Your task to perform on an android device: manage bookmarks in the chrome app Image 0: 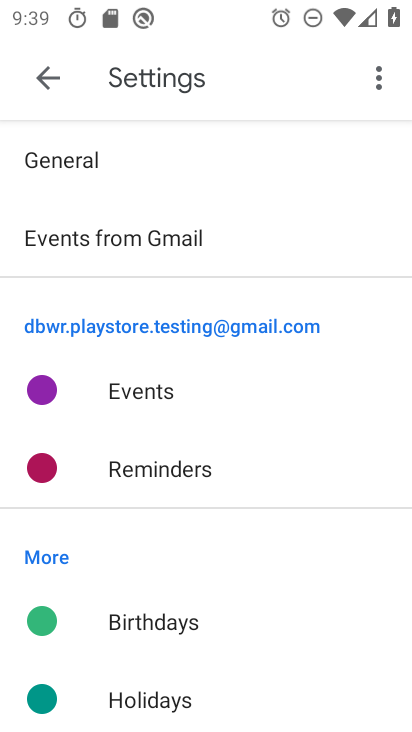
Step 0: press back button
Your task to perform on an android device: manage bookmarks in the chrome app Image 1: 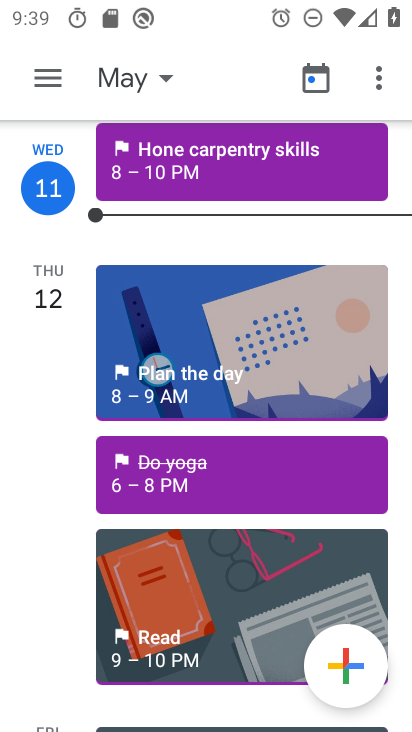
Step 1: press home button
Your task to perform on an android device: manage bookmarks in the chrome app Image 2: 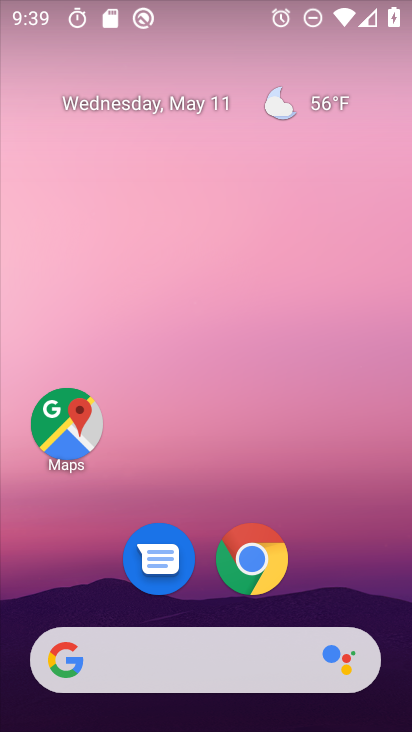
Step 2: click (282, 570)
Your task to perform on an android device: manage bookmarks in the chrome app Image 3: 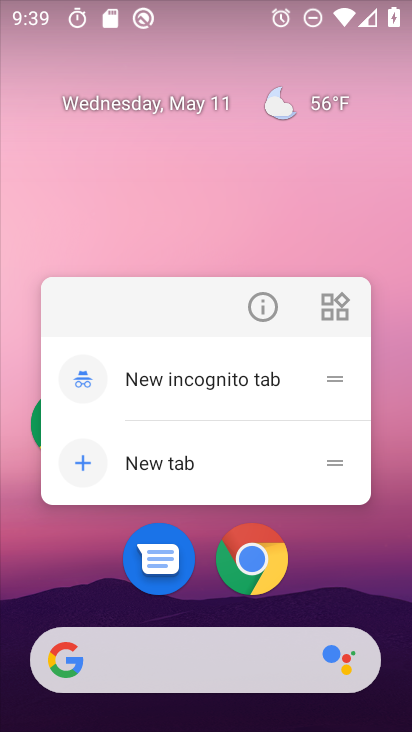
Step 3: click (242, 561)
Your task to perform on an android device: manage bookmarks in the chrome app Image 4: 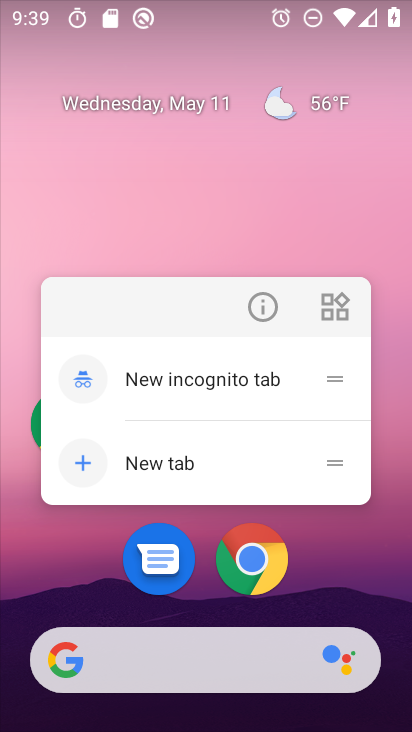
Step 4: click (242, 561)
Your task to perform on an android device: manage bookmarks in the chrome app Image 5: 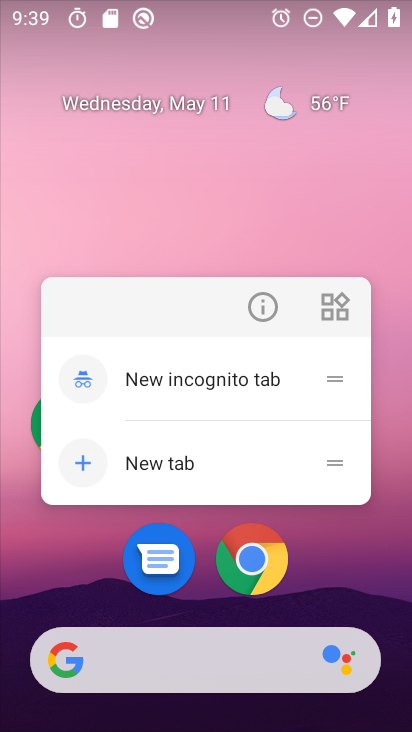
Step 5: click (247, 559)
Your task to perform on an android device: manage bookmarks in the chrome app Image 6: 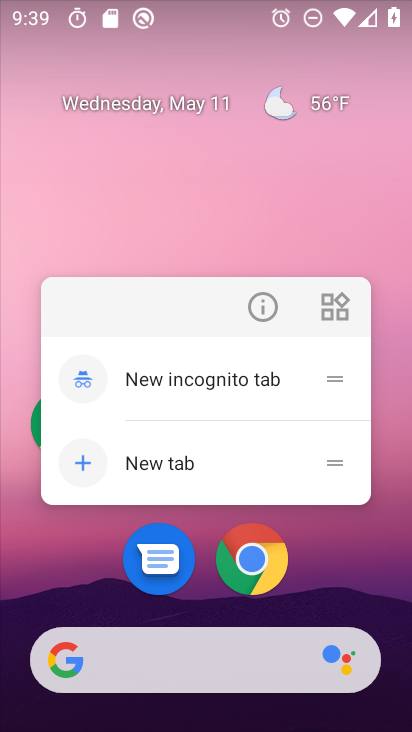
Step 6: click (249, 558)
Your task to perform on an android device: manage bookmarks in the chrome app Image 7: 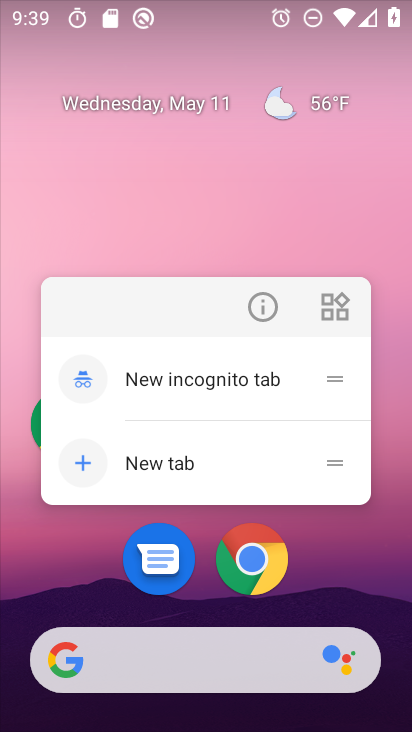
Step 7: click (249, 558)
Your task to perform on an android device: manage bookmarks in the chrome app Image 8: 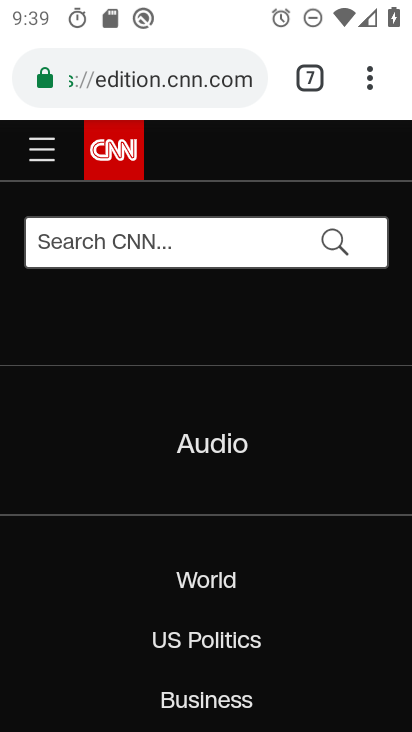
Step 8: click (363, 88)
Your task to perform on an android device: manage bookmarks in the chrome app Image 9: 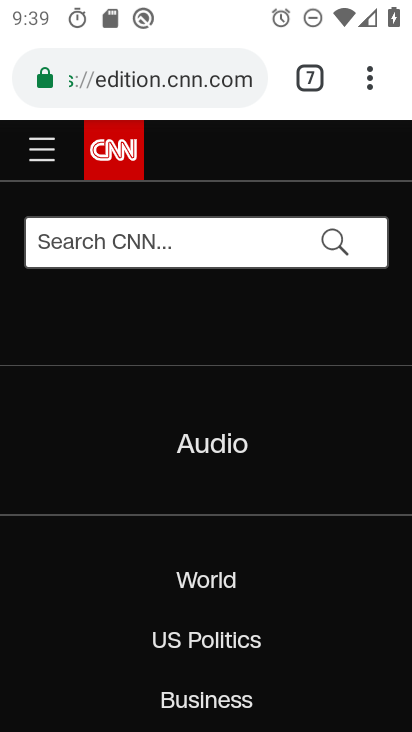
Step 9: click (369, 78)
Your task to perform on an android device: manage bookmarks in the chrome app Image 10: 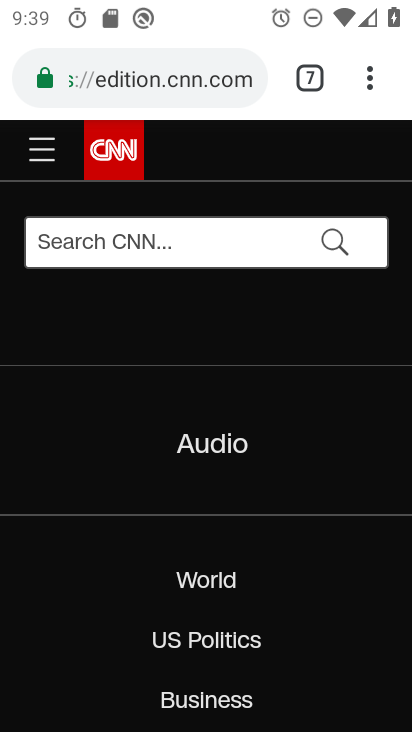
Step 10: click (370, 82)
Your task to perform on an android device: manage bookmarks in the chrome app Image 11: 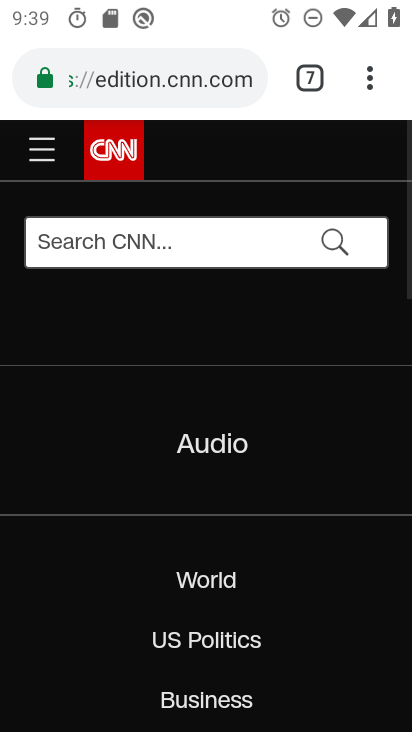
Step 11: click (371, 82)
Your task to perform on an android device: manage bookmarks in the chrome app Image 12: 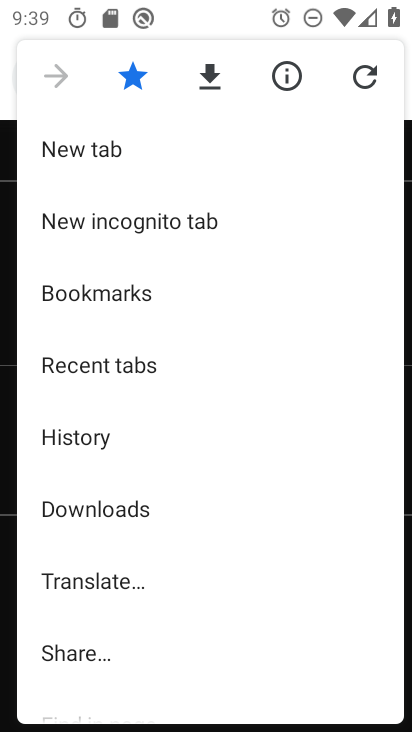
Step 12: click (130, 295)
Your task to perform on an android device: manage bookmarks in the chrome app Image 13: 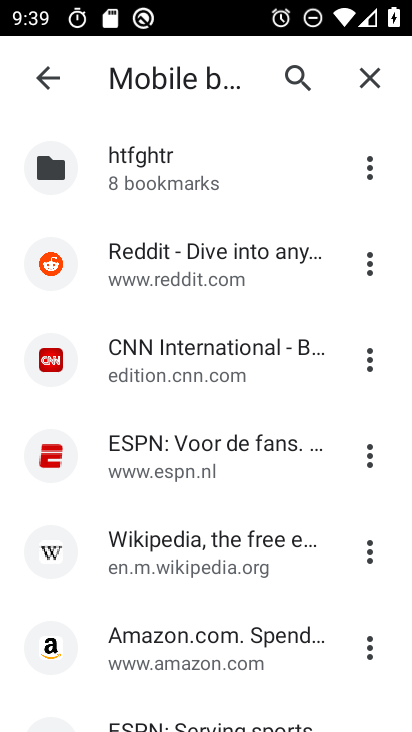
Step 13: drag from (276, 594) to (211, 155)
Your task to perform on an android device: manage bookmarks in the chrome app Image 14: 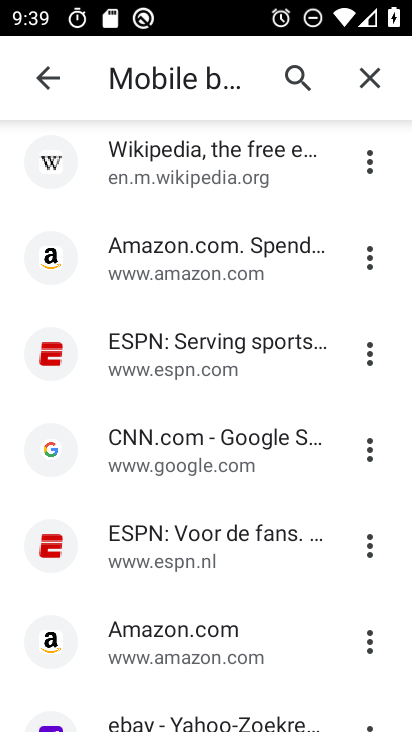
Step 14: drag from (237, 517) to (228, 87)
Your task to perform on an android device: manage bookmarks in the chrome app Image 15: 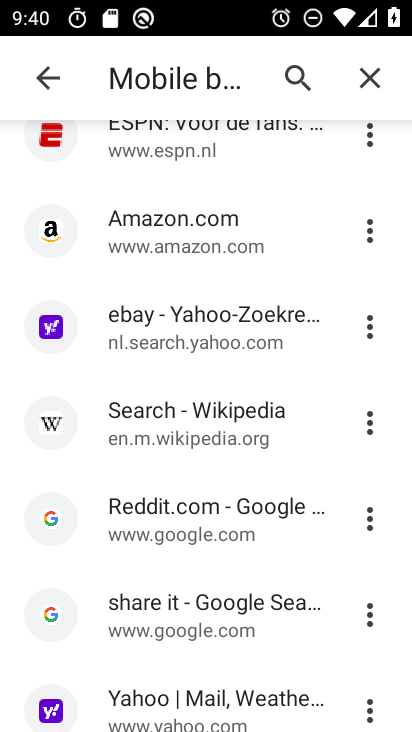
Step 15: click (50, 76)
Your task to perform on an android device: manage bookmarks in the chrome app Image 16: 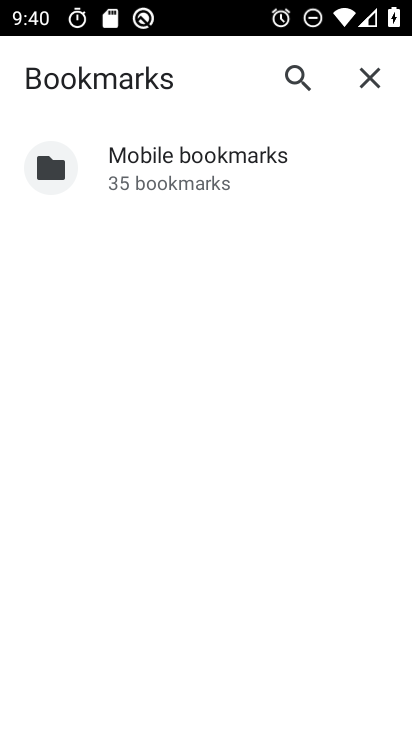
Step 16: click (179, 180)
Your task to perform on an android device: manage bookmarks in the chrome app Image 17: 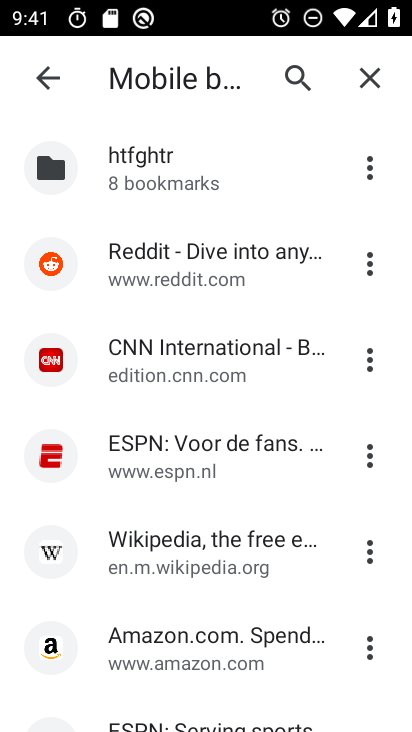
Step 17: click (375, 263)
Your task to perform on an android device: manage bookmarks in the chrome app Image 18: 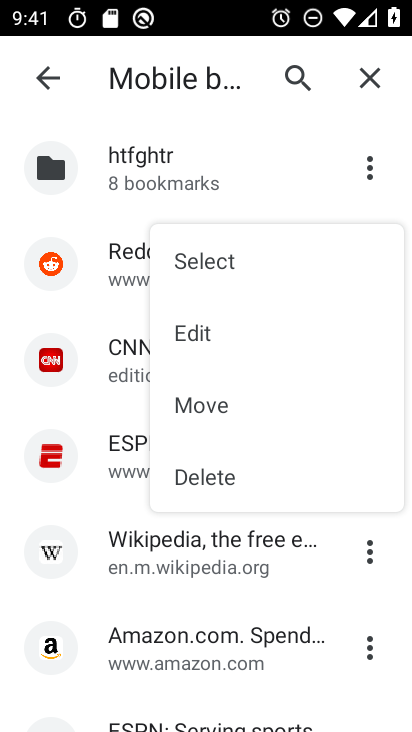
Step 18: click (262, 480)
Your task to perform on an android device: manage bookmarks in the chrome app Image 19: 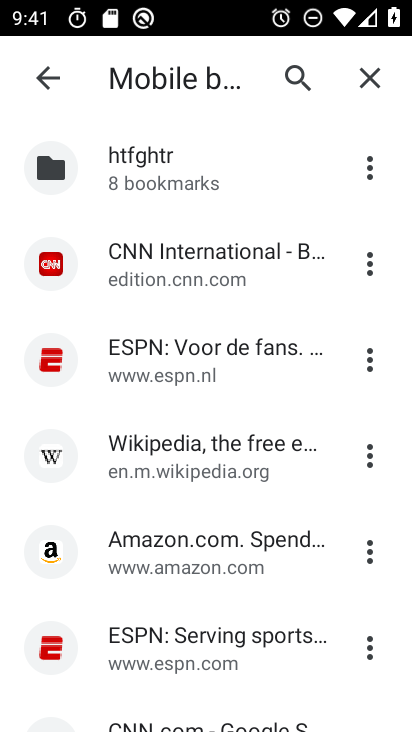
Step 19: task complete